Your task to perform on an android device: clear all cookies in the chrome app Image 0: 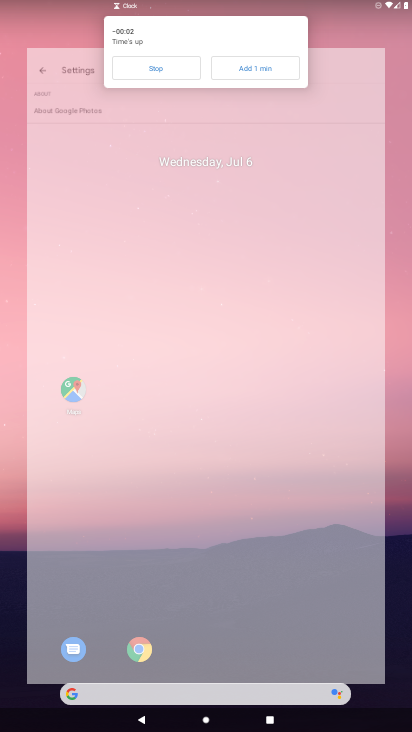
Step 0: drag from (331, 678) to (268, 215)
Your task to perform on an android device: clear all cookies in the chrome app Image 1: 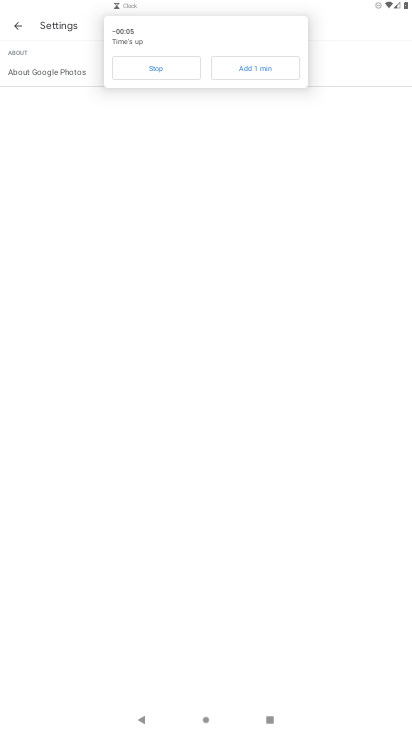
Step 1: click (17, 31)
Your task to perform on an android device: clear all cookies in the chrome app Image 2: 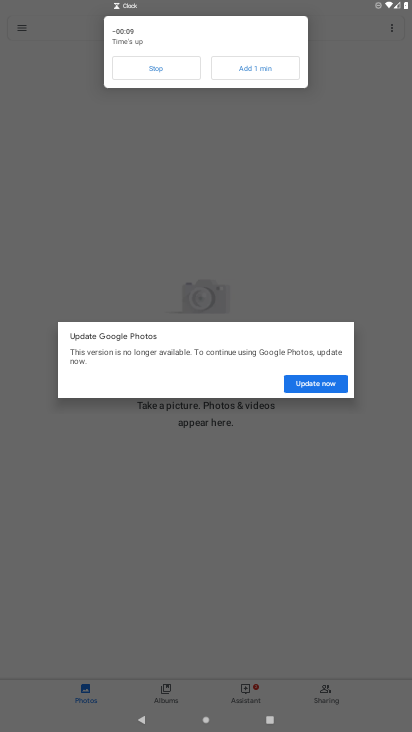
Step 2: click (294, 479)
Your task to perform on an android device: clear all cookies in the chrome app Image 3: 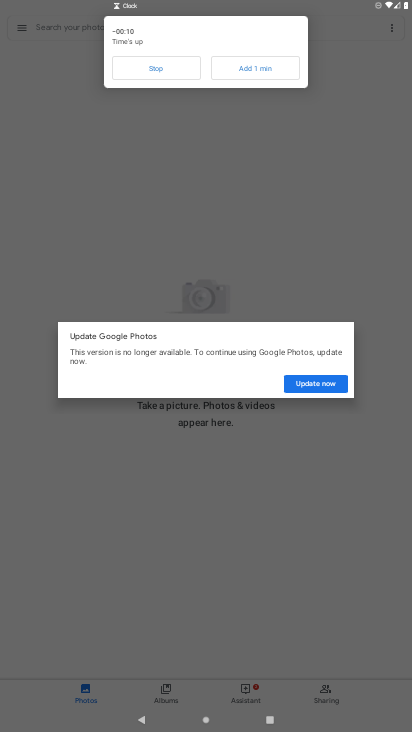
Step 3: click (151, 105)
Your task to perform on an android device: clear all cookies in the chrome app Image 4: 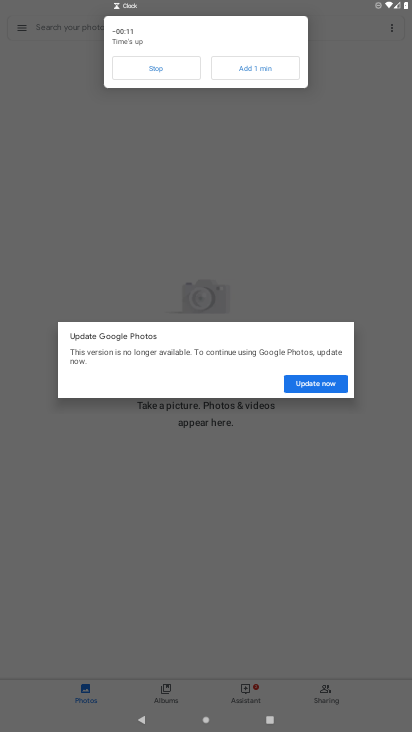
Step 4: click (153, 113)
Your task to perform on an android device: clear all cookies in the chrome app Image 5: 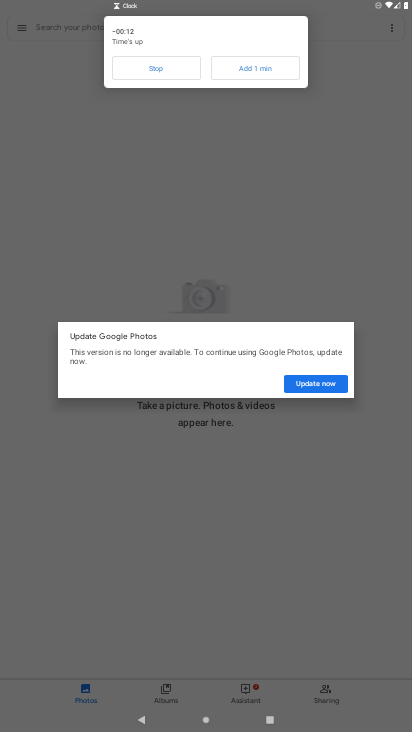
Step 5: click (150, 121)
Your task to perform on an android device: clear all cookies in the chrome app Image 6: 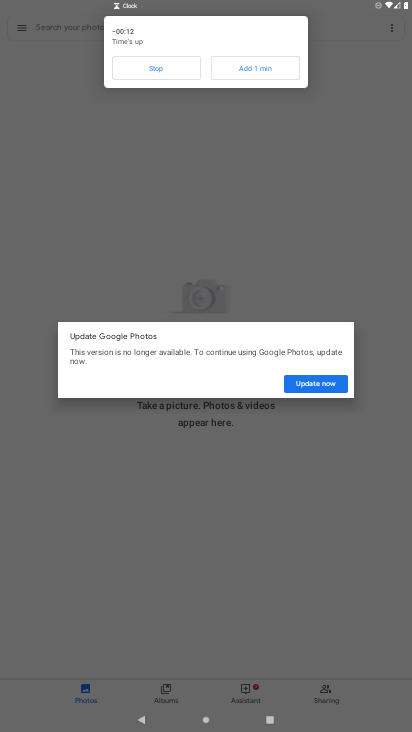
Step 6: click (149, 122)
Your task to perform on an android device: clear all cookies in the chrome app Image 7: 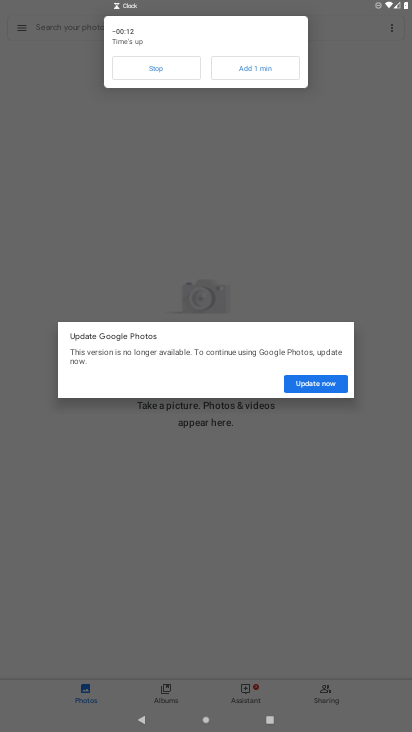
Step 7: click (149, 123)
Your task to perform on an android device: clear all cookies in the chrome app Image 8: 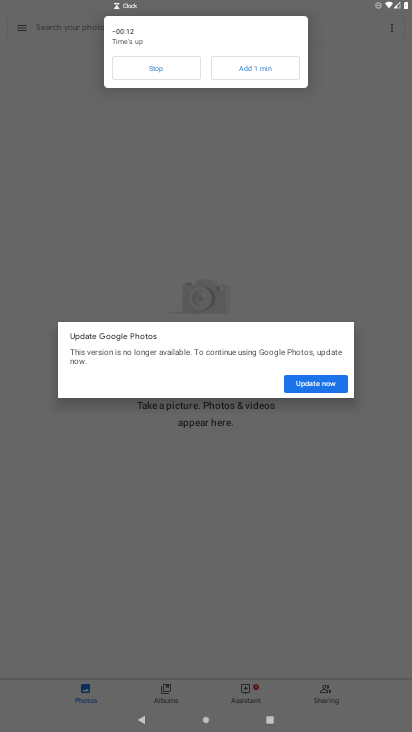
Step 8: click (149, 125)
Your task to perform on an android device: clear all cookies in the chrome app Image 9: 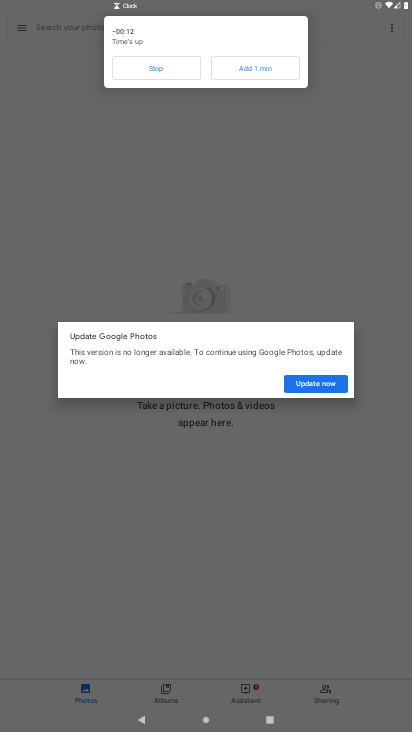
Step 9: click (124, 159)
Your task to perform on an android device: clear all cookies in the chrome app Image 10: 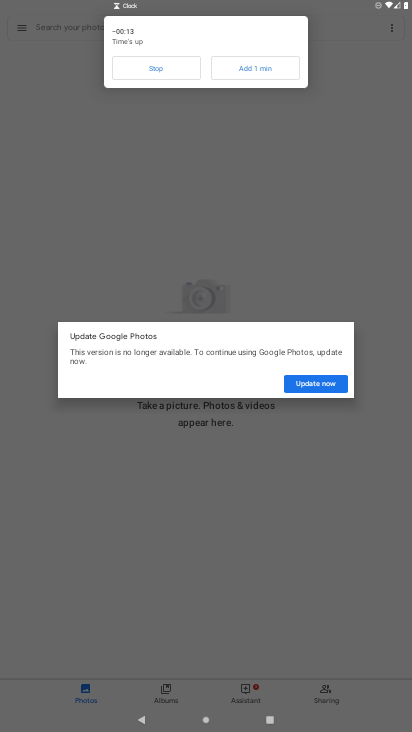
Step 10: click (122, 166)
Your task to perform on an android device: clear all cookies in the chrome app Image 11: 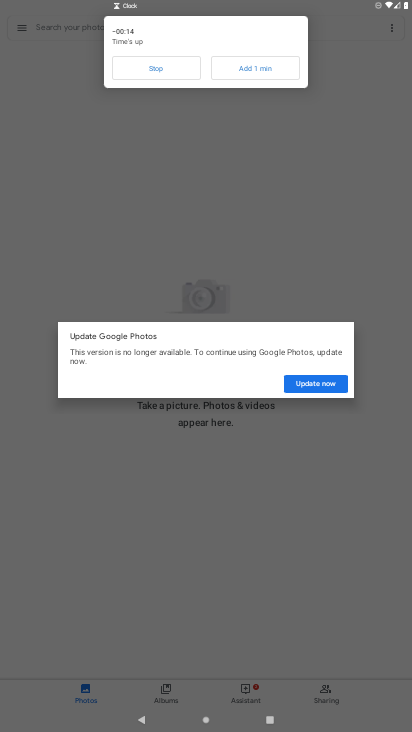
Step 11: click (124, 168)
Your task to perform on an android device: clear all cookies in the chrome app Image 12: 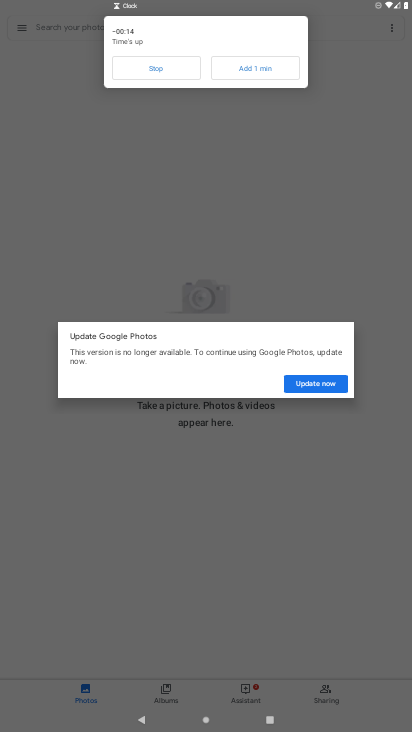
Step 12: click (125, 169)
Your task to perform on an android device: clear all cookies in the chrome app Image 13: 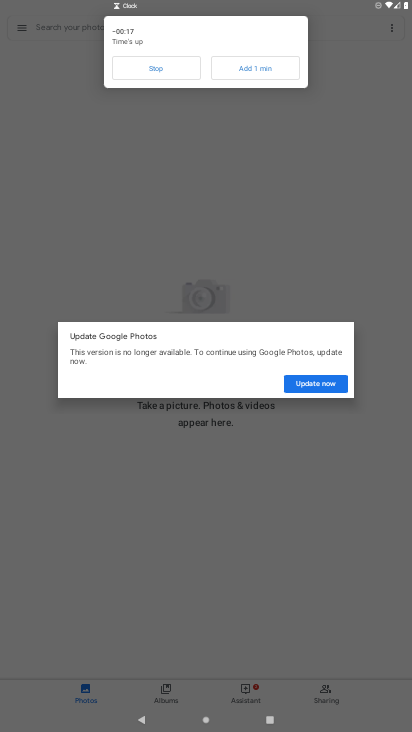
Step 13: click (131, 170)
Your task to perform on an android device: clear all cookies in the chrome app Image 14: 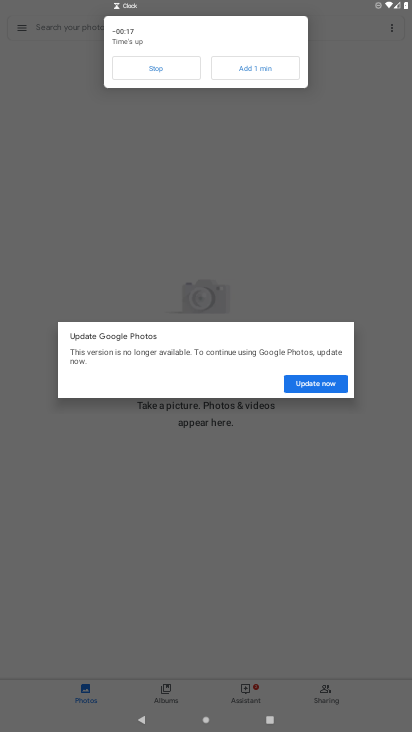
Step 14: click (131, 170)
Your task to perform on an android device: clear all cookies in the chrome app Image 15: 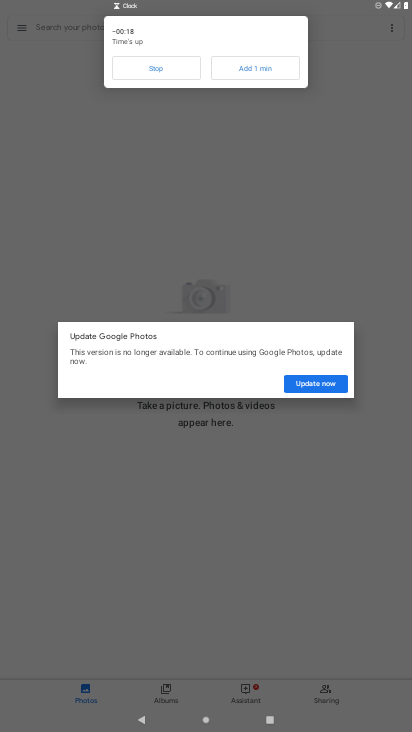
Step 15: press back button
Your task to perform on an android device: clear all cookies in the chrome app Image 16: 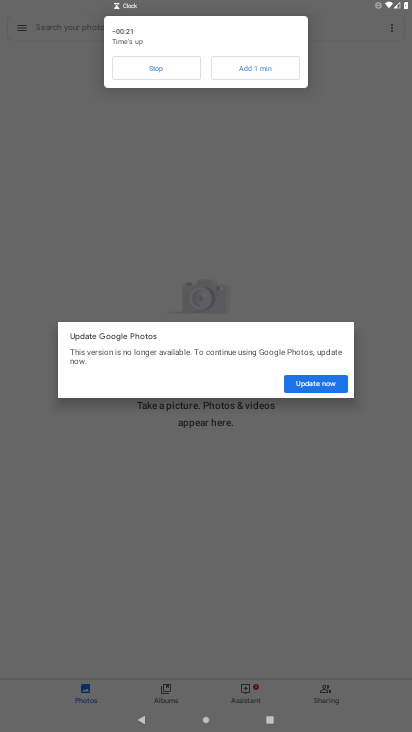
Step 16: press back button
Your task to perform on an android device: clear all cookies in the chrome app Image 17: 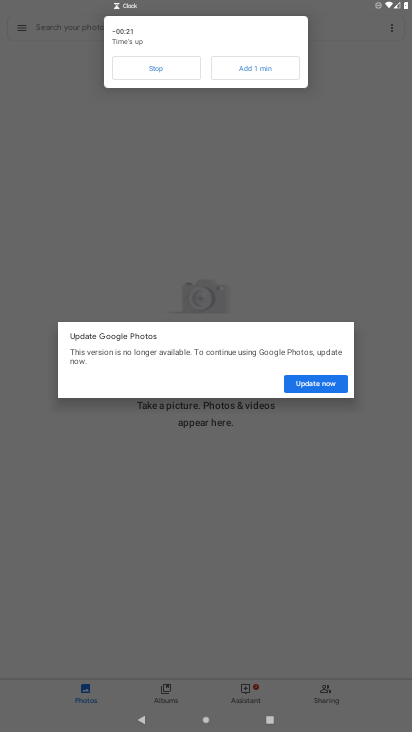
Step 17: press back button
Your task to perform on an android device: clear all cookies in the chrome app Image 18: 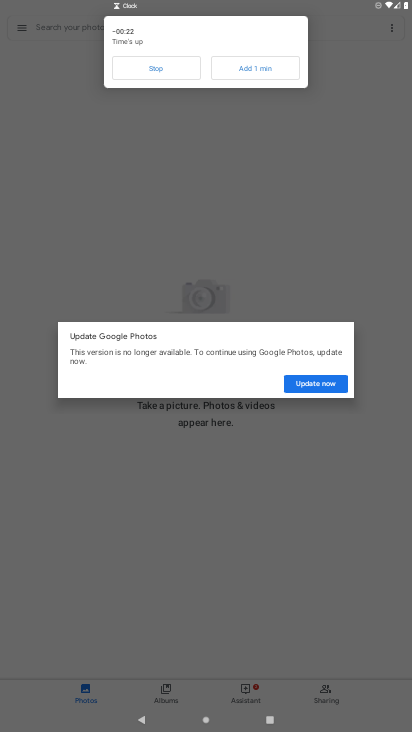
Step 18: press home button
Your task to perform on an android device: clear all cookies in the chrome app Image 19: 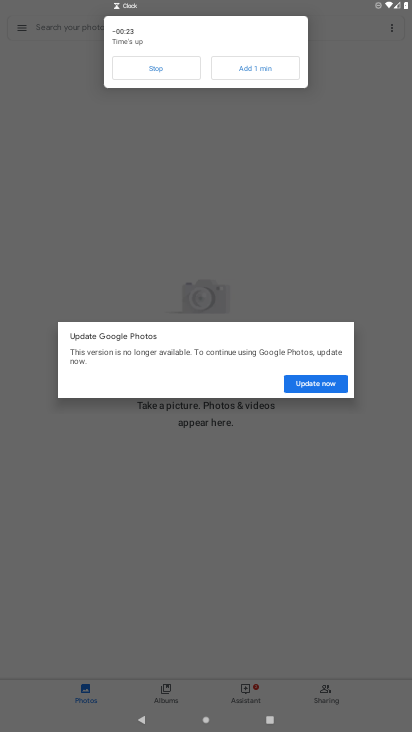
Step 19: press home button
Your task to perform on an android device: clear all cookies in the chrome app Image 20: 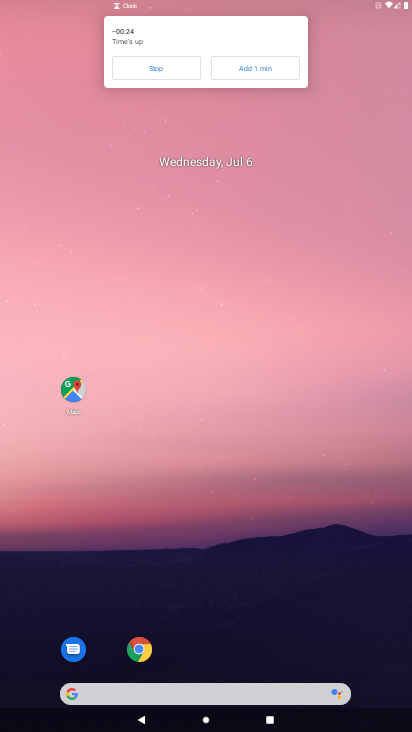
Step 20: press home button
Your task to perform on an android device: clear all cookies in the chrome app Image 21: 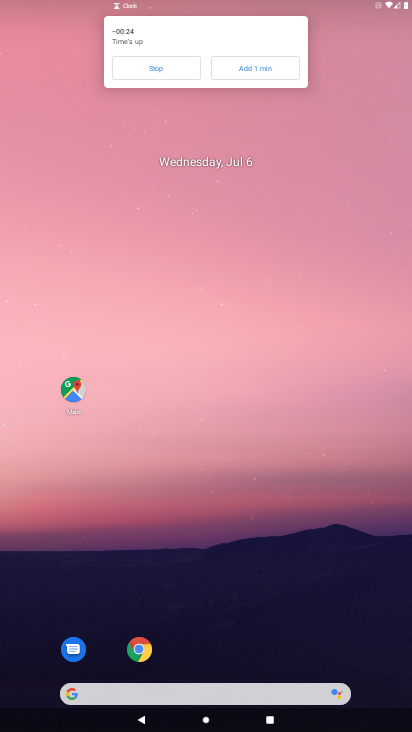
Step 21: click (317, 381)
Your task to perform on an android device: clear all cookies in the chrome app Image 22: 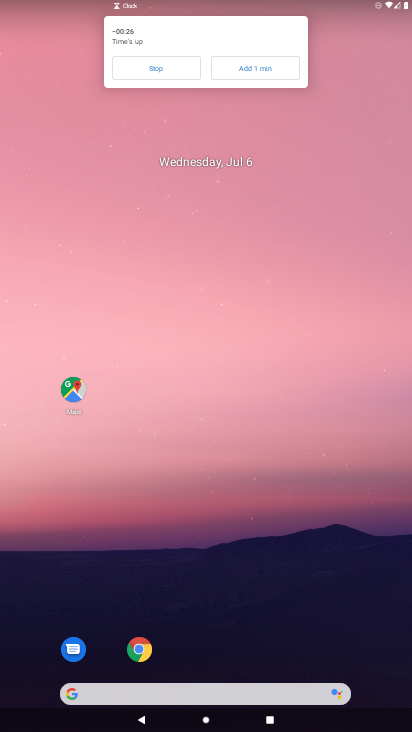
Step 22: drag from (297, 591) to (227, 168)
Your task to perform on an android device: clear all cookies in the chrome app Image 23: 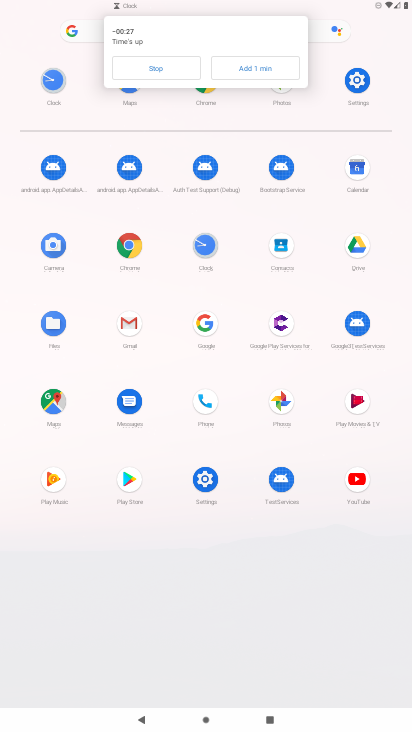
Step 23: click (169, 75)
Your task to perform on an android device: clear all cookies in the chrome app Image 24: 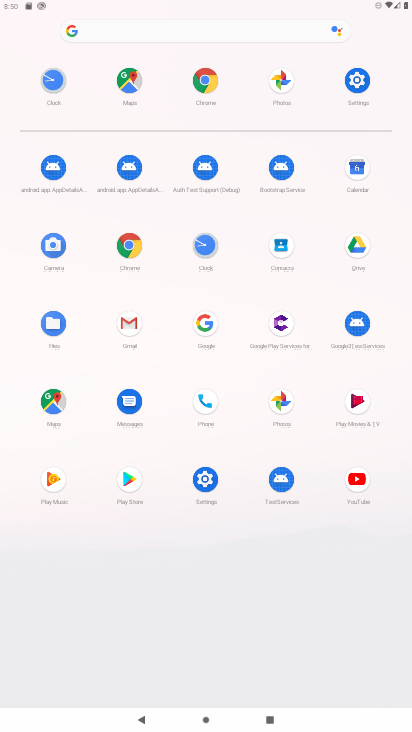
Step 24: click (128, 248)
Your task to perform on an android device: clear all cookies in the chrome app Image 25: 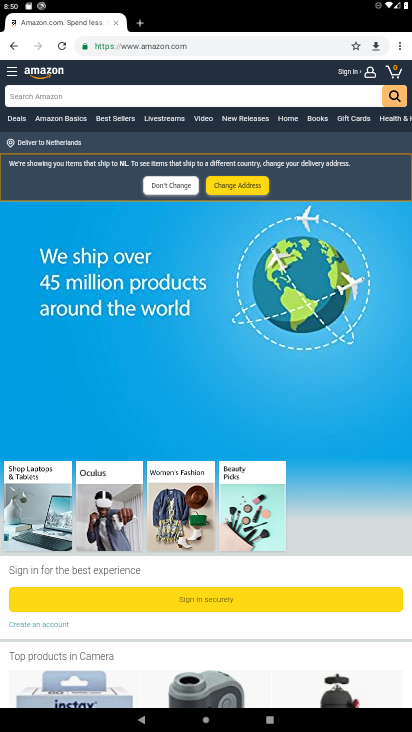
Step 25: press back button
Your task to perform on an android device: clear all cookies in the chrome app Image 26: 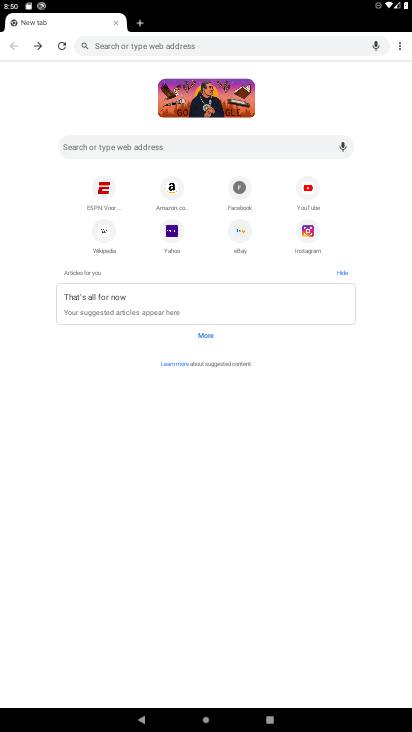
Step 26: press home button
Your task to perform on an android device: clear all cookies in the chrome app Image 27: 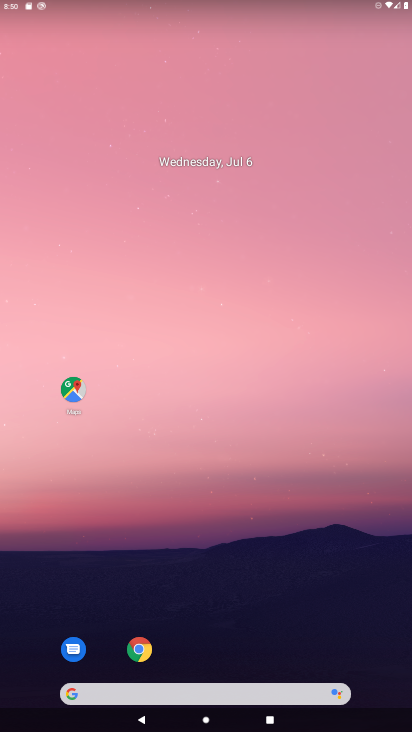
Step 27: drag from (296, 630) to (240, 228)
Your task to perform on an android device: clear all cookies in the chrome app Image 28: 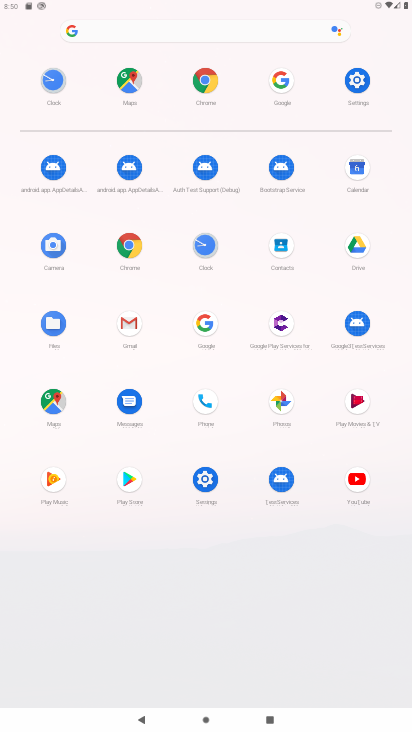
Step 28: click (144, 246)
Your task to perform on an android device: clear all cookies in the chrome app Image 29: 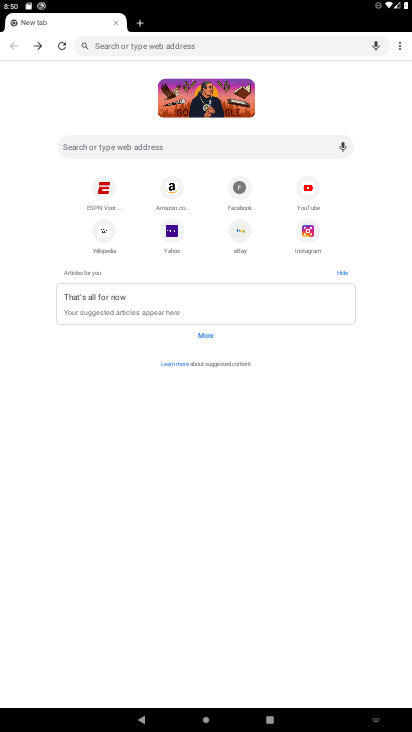
Step 29: click (400, 45)
Your task to perform on an android device: clear all cookies in the chrome app Image 30: 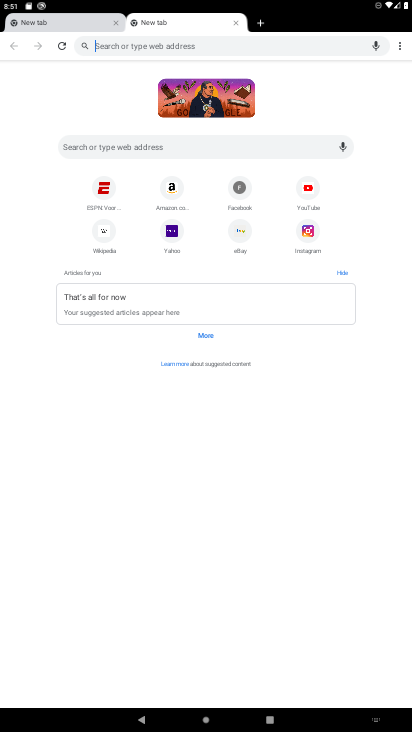
Step 30: click (400, 45)
Your task to perform on an android device: clear all cookies in the chrome app Image 31: 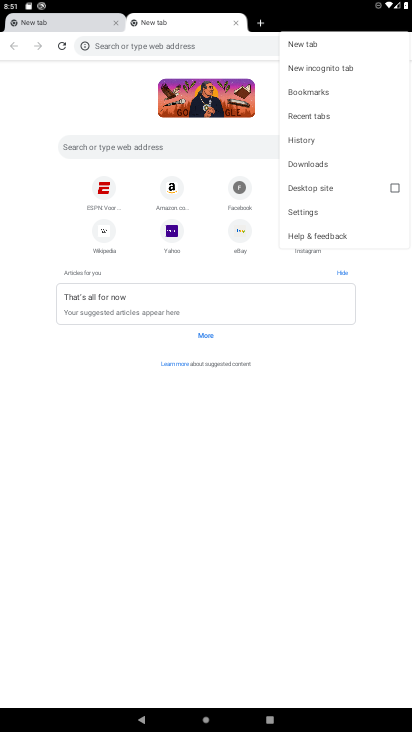
Step 31: click (297, 214)
Your task to perform on an android device: clear all cookies in the chrome app Image 32: 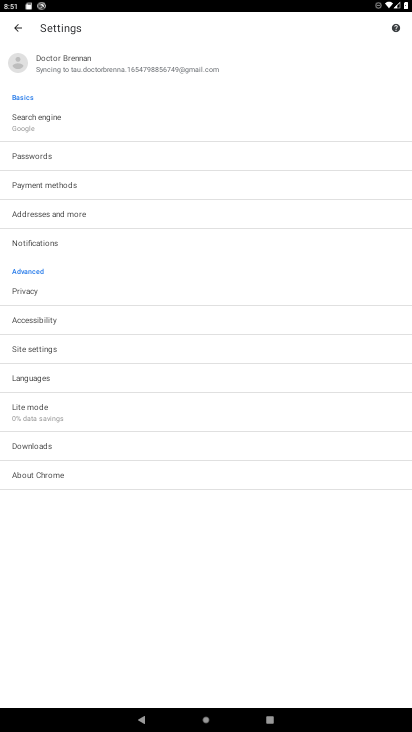
Step 32: click (42, 348)
Your task to perform on an android device: clear all cookies in the chrome app Image 33: 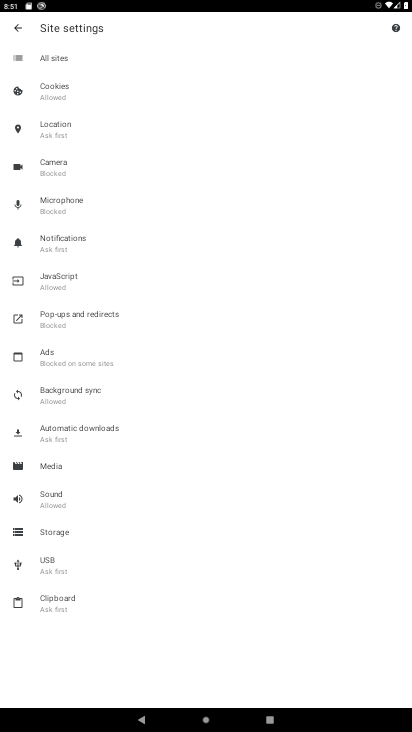
Step 33: click (58, 82)
Your task to perform on an android device: clear all cookies in the chrome app Image 34: 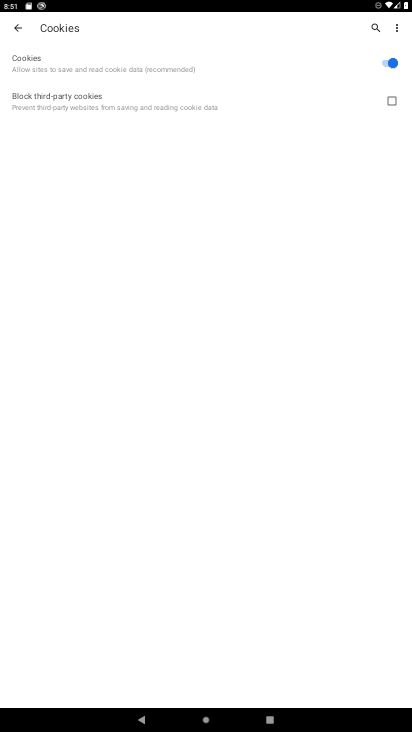
Step 34: click (397, 63)
Your task to perform on an android device: clear all cookies in the chrome app Image 35: 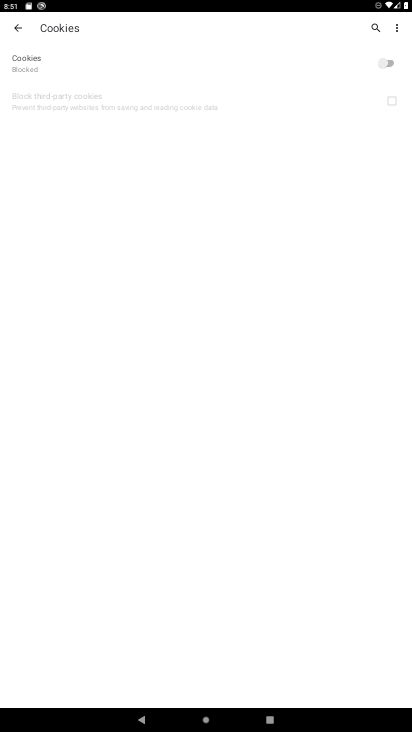
Step 35: task complete